Your task to perform on an android device: empty trash in the gmail app Image 0: 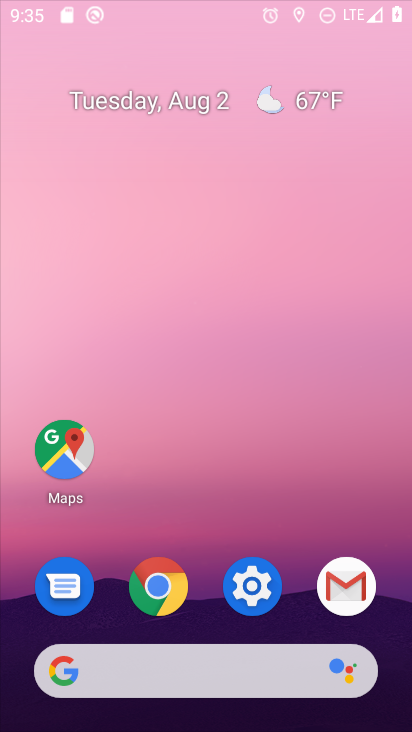
Step 0: press home button
Your task to perform on an android device: empty trash in the gmail app Image 1: 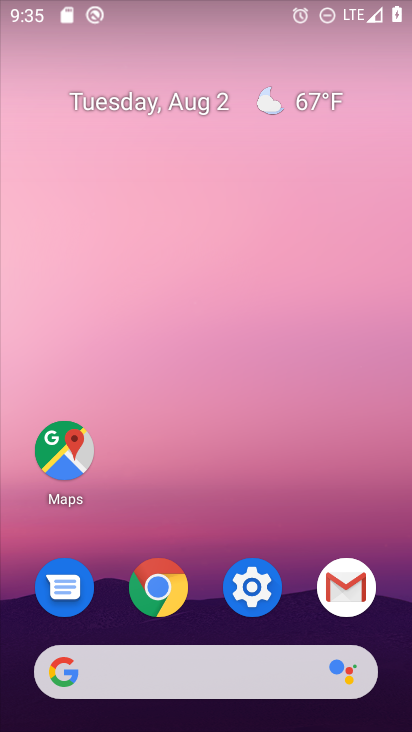
Step 1: click (63, 460)
Your task to perform on an android device: empty trash in the gmail app Image 2: 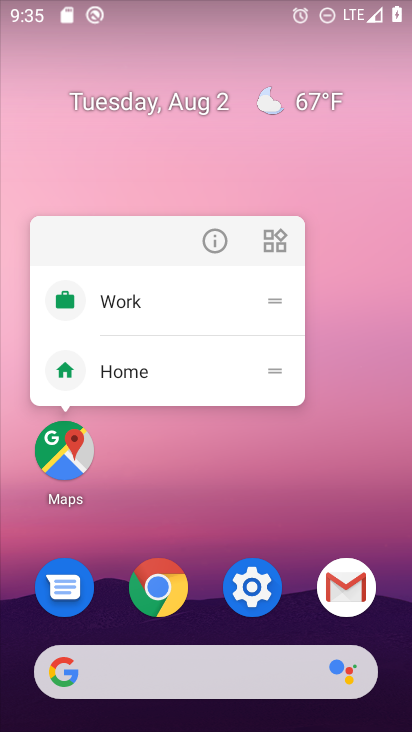
Step 2: click (57, 468)
Your task to perform on an android device: empty trash in the gmail app Image 3: 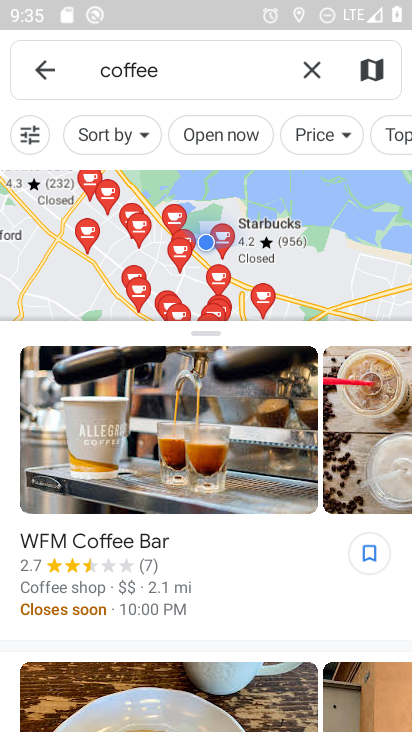
Step 3: click (35, 64)
Your task to perform on an android device: empty trash in the gmail app Image 4: 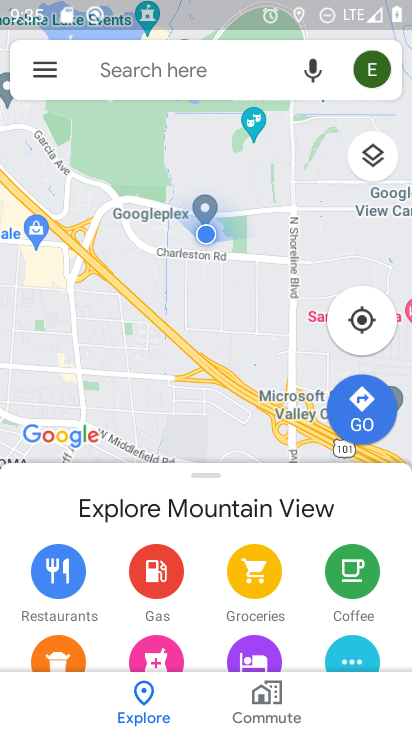
Step 4: press home button
Your task to perform on an android device: empty trash in the gmail app Image 5: 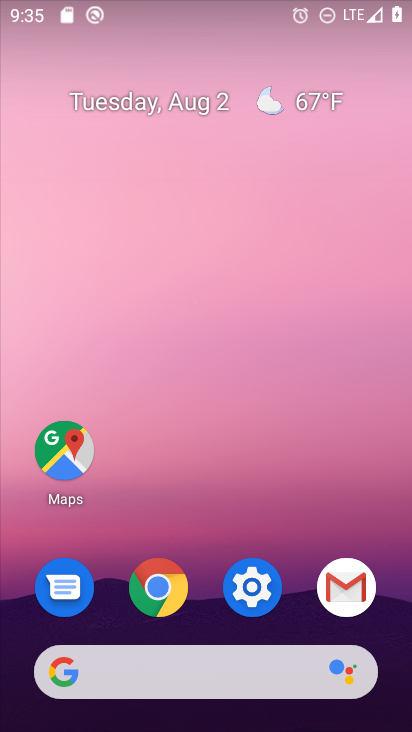
Step 5: click (369, 579)
Your task to perform on an android device: empty trash in the gmail app Image 6: 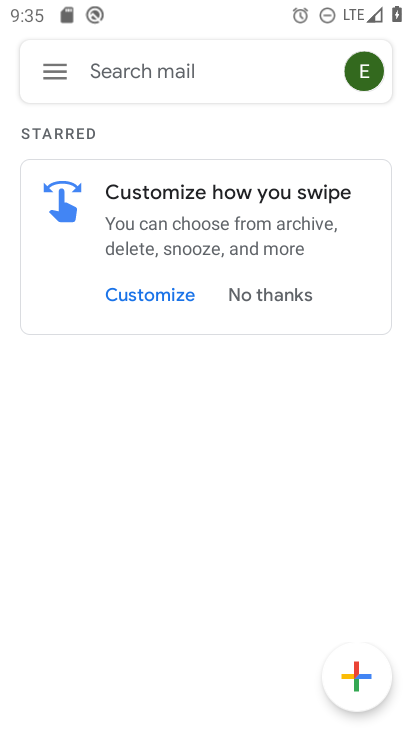
Step 6: click (252, 296)
Your task to perform on an android device: empty trash in the gmail app Image 7: 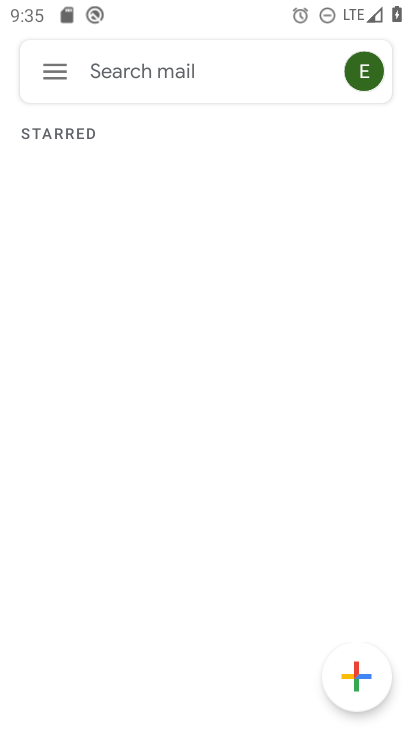
Step 7: click (62, 77)
Your task to perform on an android device: empty trash in the gmail app Image 8: 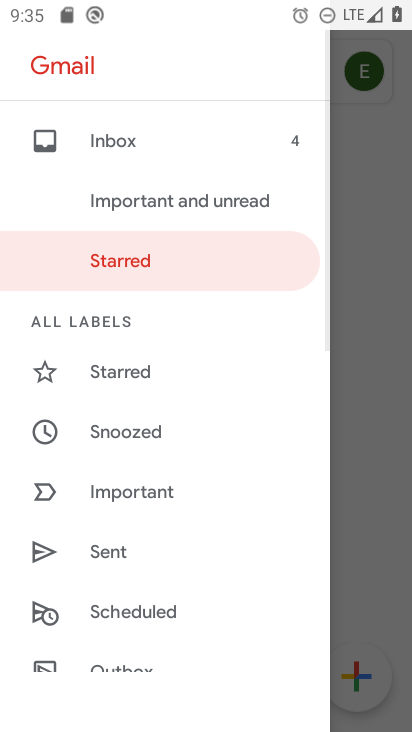
Step 8: drag from (160, 601) to (163, 354)
Your task to perform on an android device: empty trash in the gmail app Image 9: 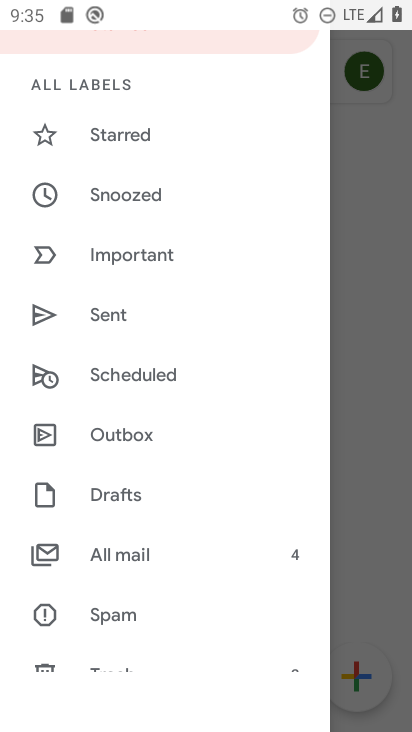
Step 9: drag from (147, 614) to (99, 451)
Your task to perform on an android device: empty trash in the gmail app Image 10: 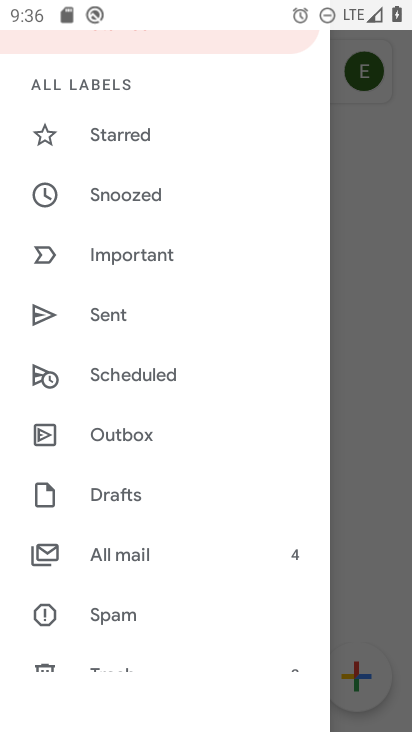
Step 10: drag from (101, 580) to (96, 462)
Your task to perform on an android device: empty trash in the gmail app Image 11: 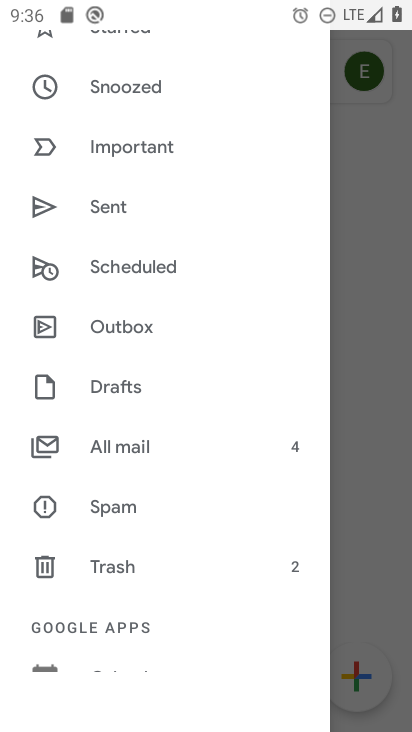
Step 11: click (133, 576)
Your task to perform on an android device: empty trash in the gmail app Image 12: 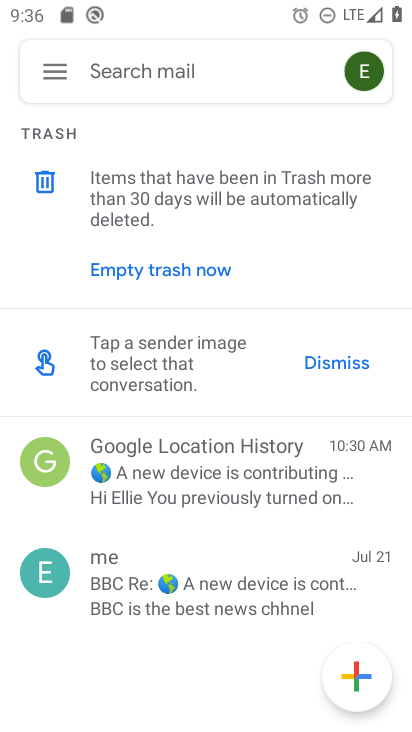
Step 12: click (143, 279)
Your task to perform on an android device: empty trash in the gmail app Image 13: 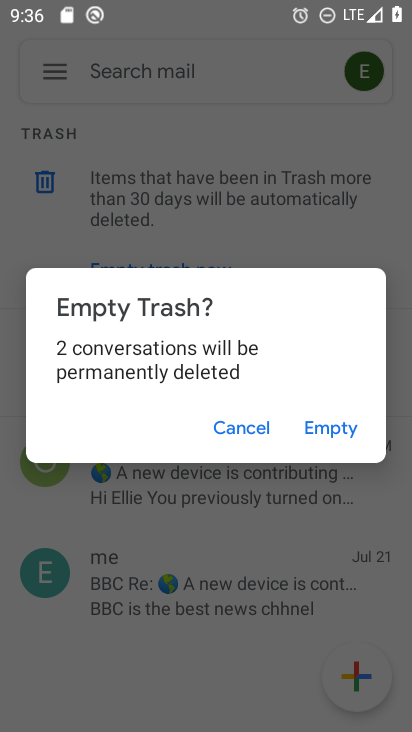
Step 13: click (334, 412)
Your task to perform on an android device: empty trash in the gmail app Image 14: 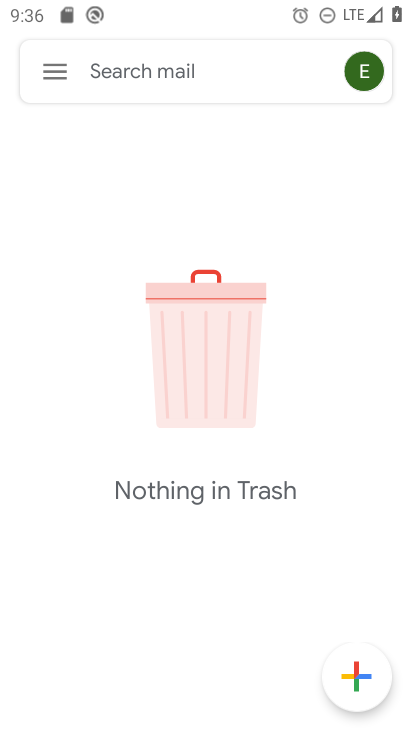
Step 14: task complete